Your task to perform on an android device: Open Yahoo.com Image 0: 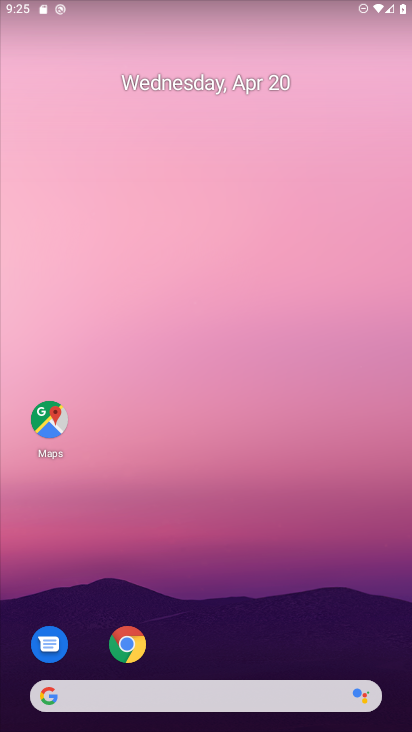
Step 0: drag from (322, 639) to (228, 90)
Your task to perform on an android device: Open Yahoo.com Image 1: 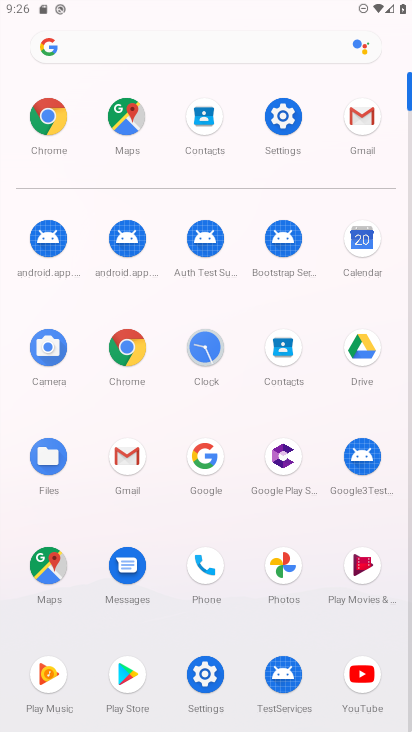
Step 1: click (128, 359)
Your task to perform on an android device: Open Yahoo.com Image 2: 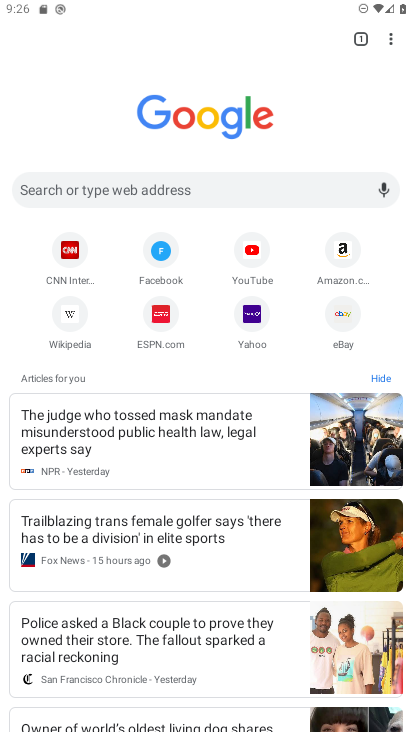
Step 2: click (256, 324)
Your task to perform on an android device: Open Yahoo.com Image 3: 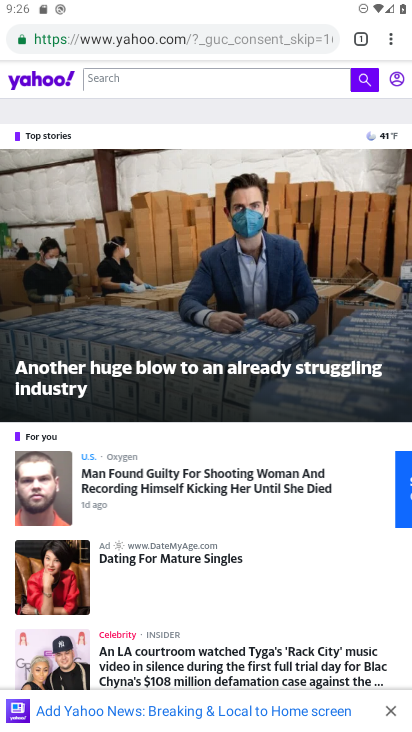
Step 3: task complete